Your task to perform on an android device: read, delete, or share a saved page in the chrome app Image 0: 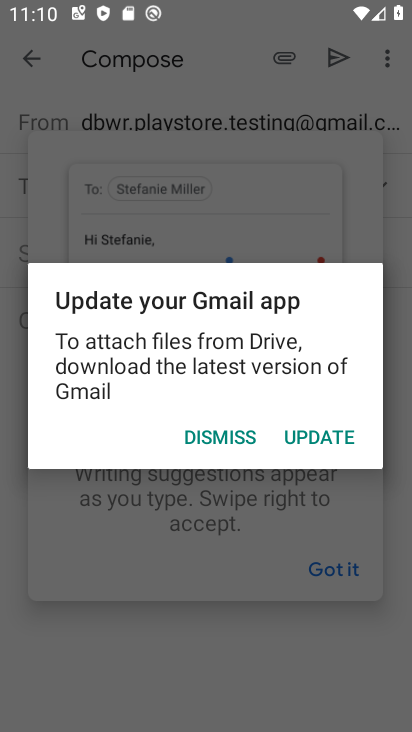
Step 0: press home button
Your task to perform on an android device: read, delete, or share a saved page in the chrome app Image 1: 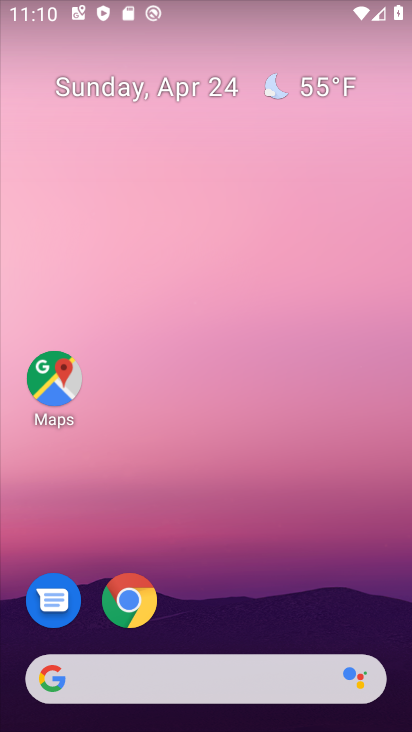
Step 1: click (123, 600)
Your task to perform on an android device: read, delete, or share a saved page in the chrome app Image 2: 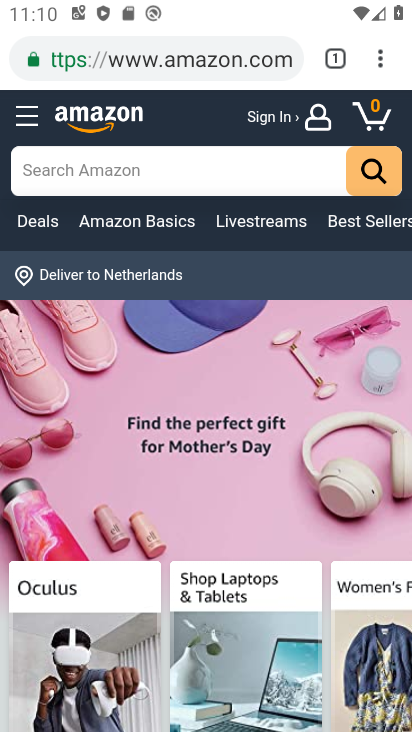
Step 2: click (382, 65)
Your task to perform on an android device: read, delete, or share a saved page in the chrome app Image 3: 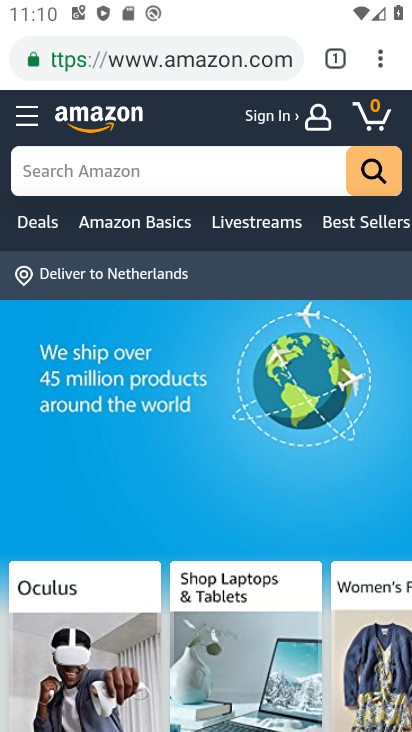
Step 3: click (383, 62)
Your task to perform on an android device: read, delete, or share a saved page in the chrome app Image 4: 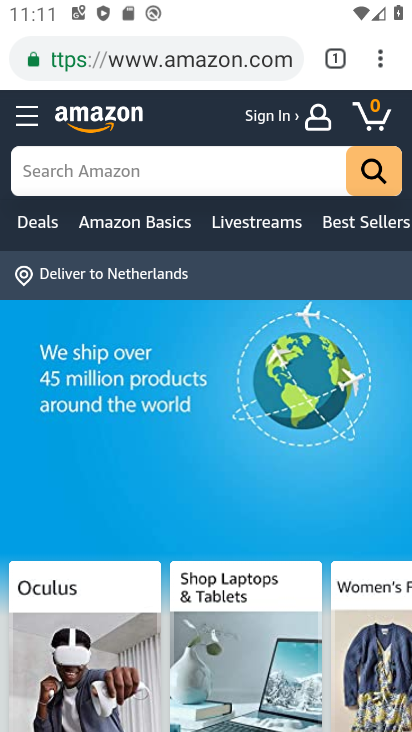
Step 4: click (386, 67)
Your task to perform on an android device: read, delete, or share a saved page in the chrome app Image 5: 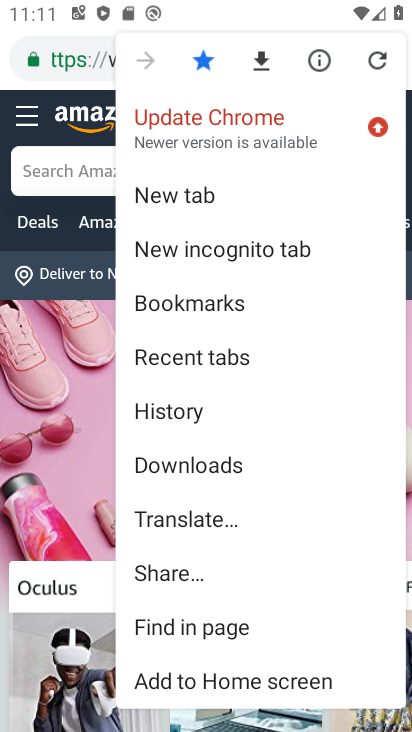
Step 5: click (202, 467)
Your task to perform on an android device: read, delete, or share a saved page in the chrome app Image 6: 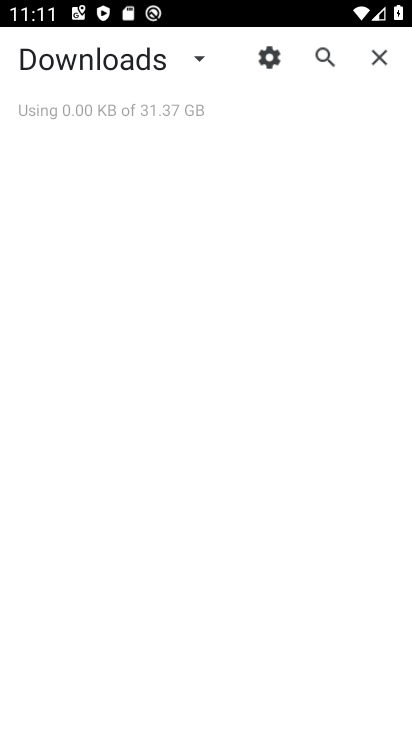
Step 6: task complete